Your task to perform on an android device: Go to eBay Image 0: 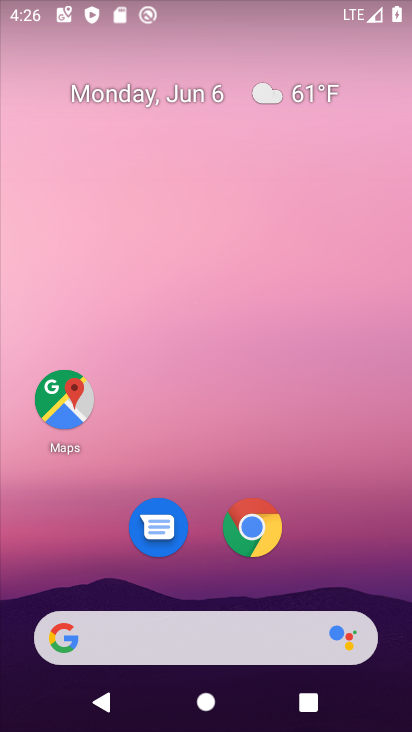
Step 0: click (275, 516)
Your task to perform on an android device: Go to eBay Image 1: 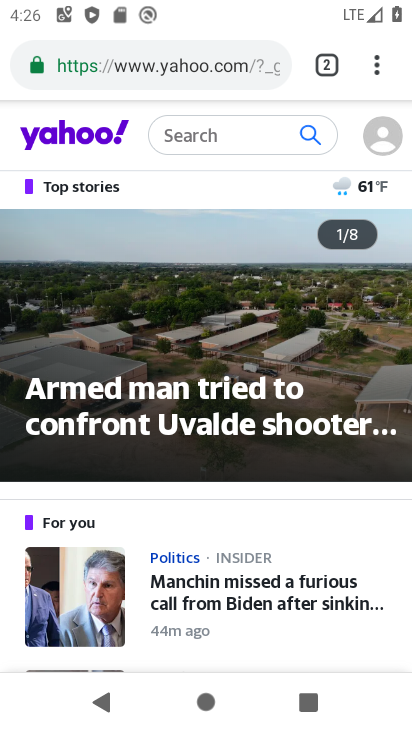
Step 1: click (338, 66)
Your task to perform on an android device: Go to eBay Image 2: 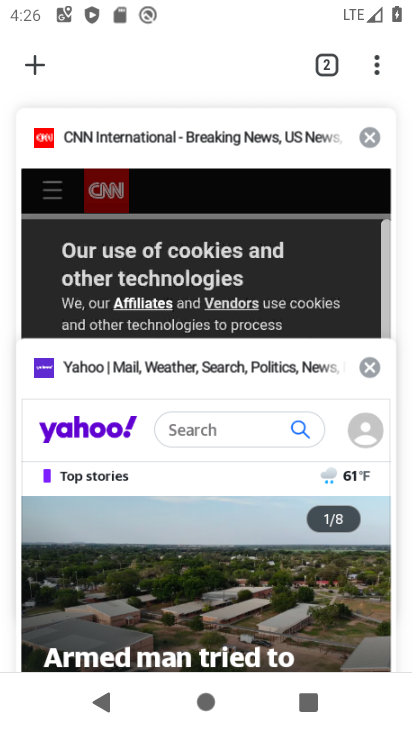
Step 2: click (24, 53)
Your task to perform on an android device: Go to eBay Image 3: 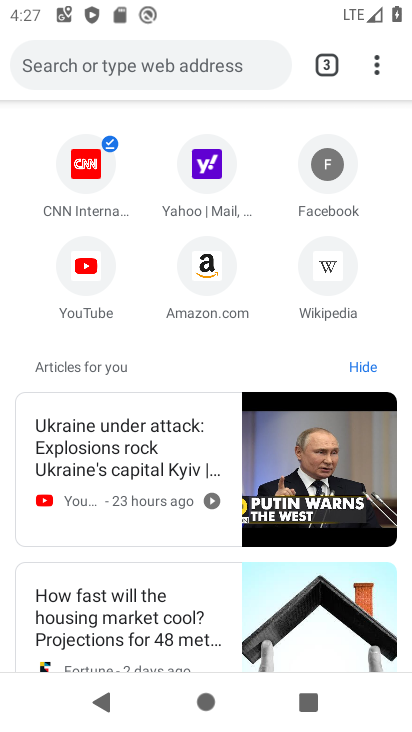
Step 3: click (191, 53)
Your task to perform on an android device: Go to eBay Image 4: 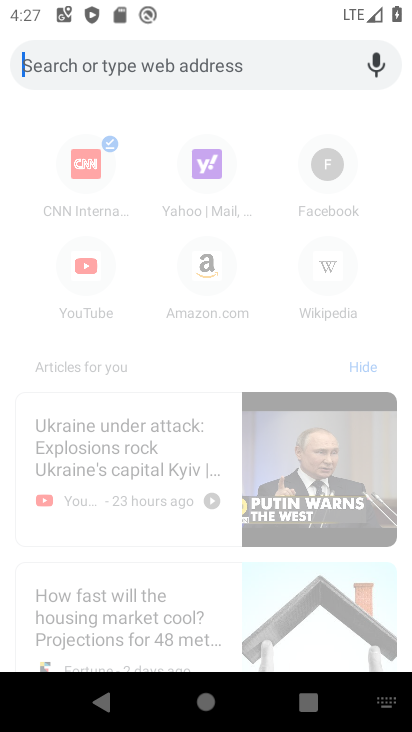
Step 4: type "ebay.com"
Your task to perform on an android device: Go to eBay Image 5: 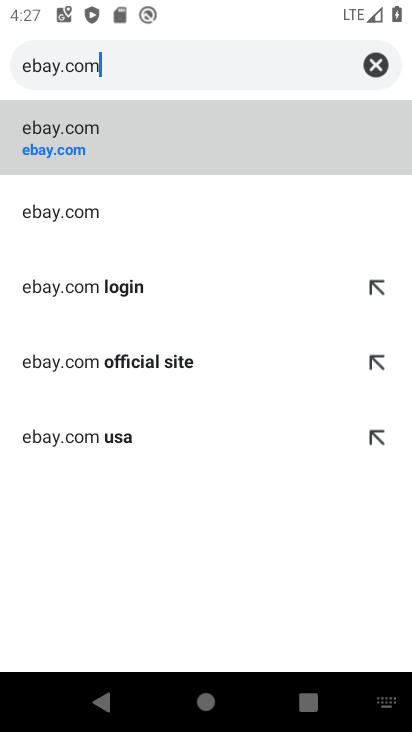
Step 5: click (120, 130)
Your task to perform on an android device: Go to eBay Image 6: 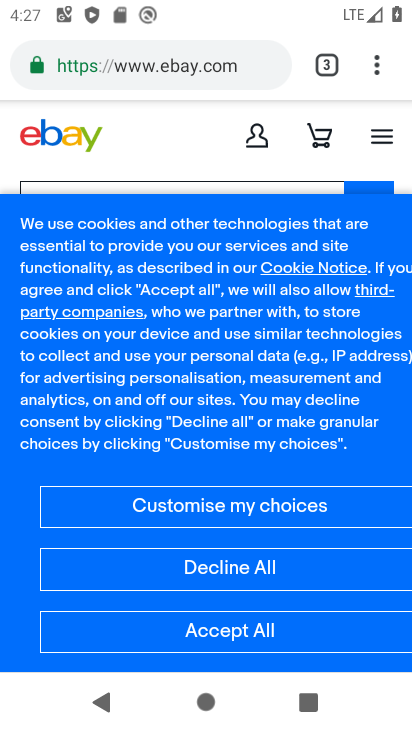
Step 6: task complete